Your task to perform on an android device: Go to Yahoo.com Image 0: 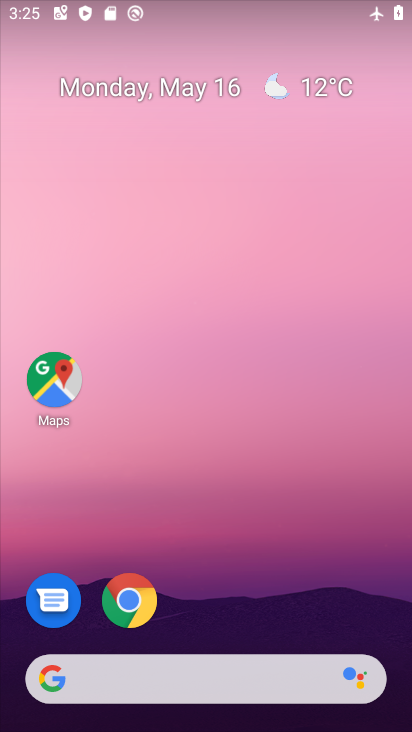
Step 0: click (123, 592)
Your task to perform on an android device: Go to Yahoo.com Image 1: 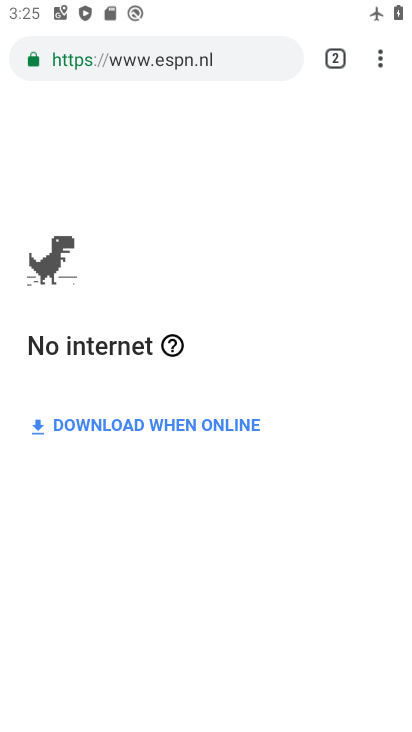
Step 1: click (330, 48)
Your task to perform on an android device: Go to Yahoo.com Image 2: 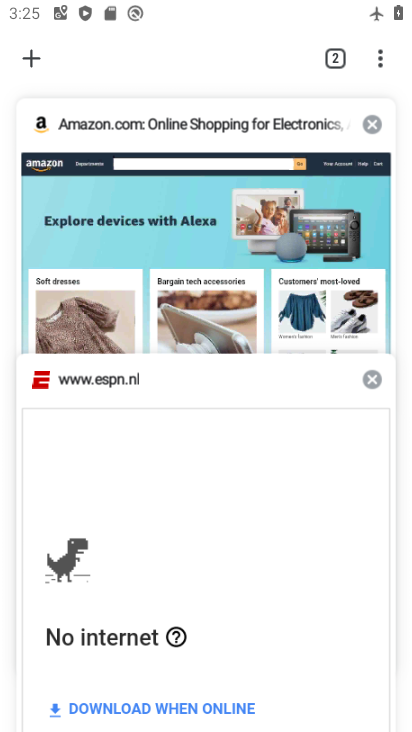
Step 2: click (42, 60)
Your task to perform on an android device: Go to Yahoo.com Image 3: 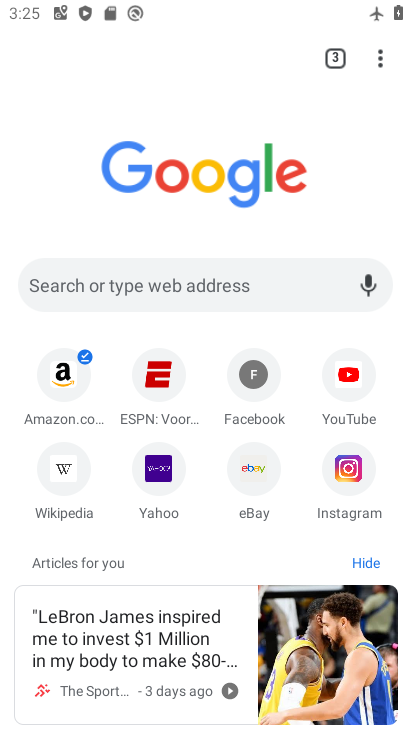
Step 3: click (149, 482)
Your task to perform on an android device: Go to Yahoo.com Image 4: 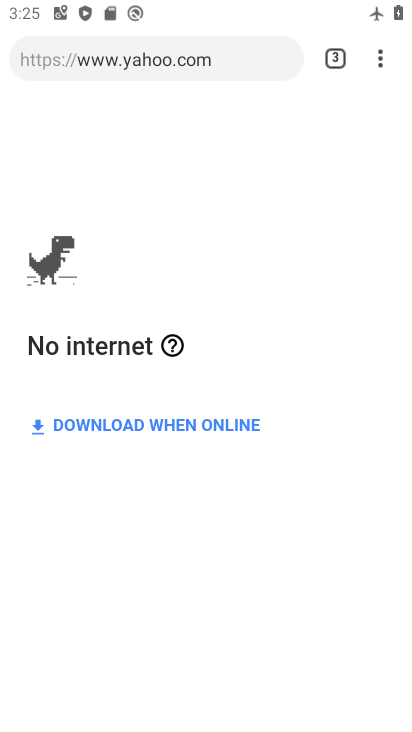
Step 4: task complete